Your task to perform on an android device: Search for seafood restaurants on Google Maps Image 0: 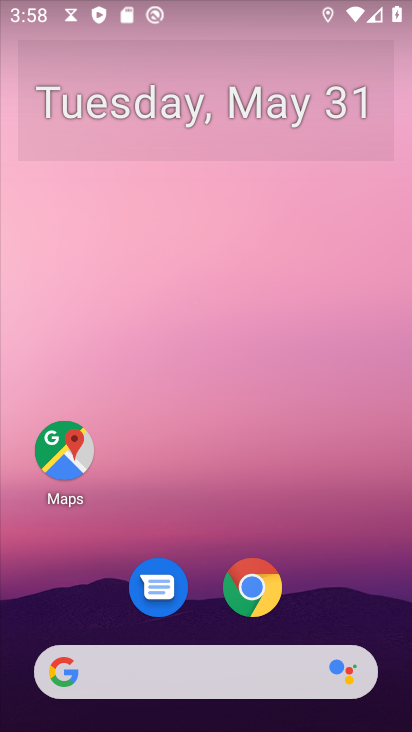
Step 0: click (71, 458)
Your task to perform on an android device: Search for seafood restaurants on Google Maps Image 1: 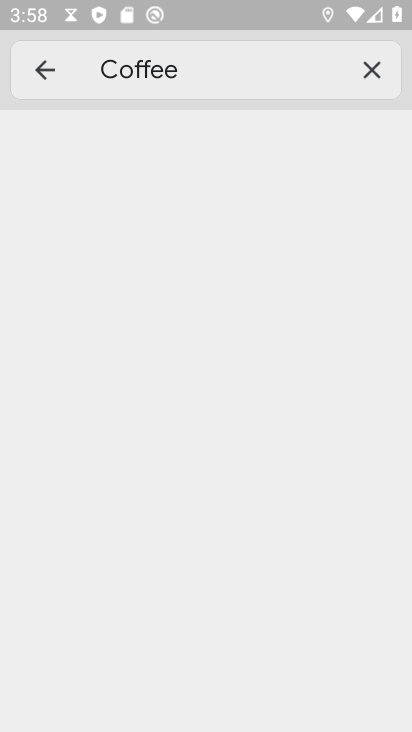
Step 1: click (386, 66)
Your task to perform on an android device: Search for seafood restaurants on Google Maps Image 2: 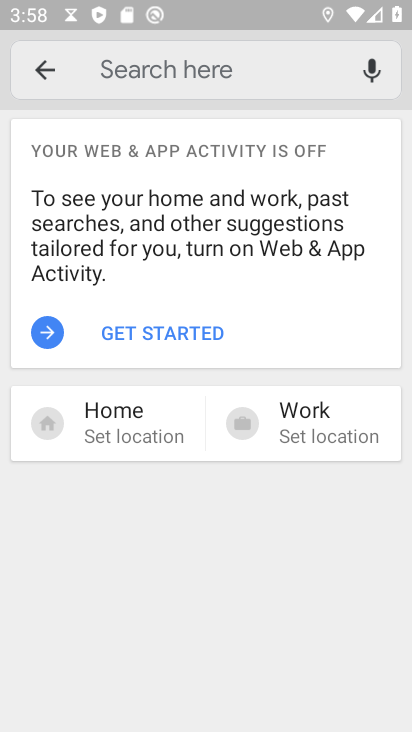
Step 2: click (187, 67)
Your task to perform on an android device: Search for seafood restaurants on Google Maps Image 3: 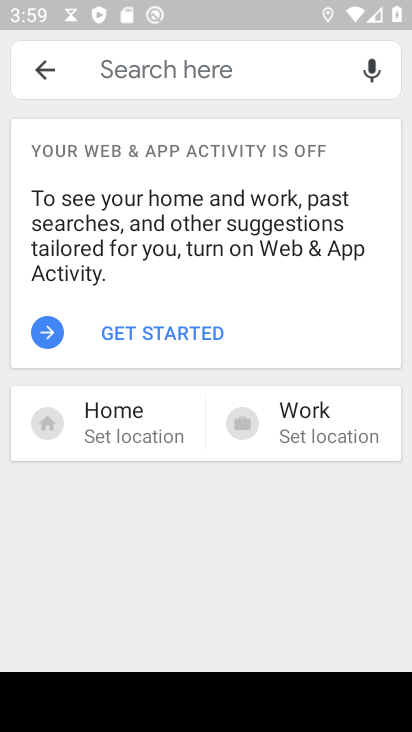
Step 3: type "Seafood restaurants "
Your task to perform on an android device: Search for seafood restaurants on Google Maps Image 4: 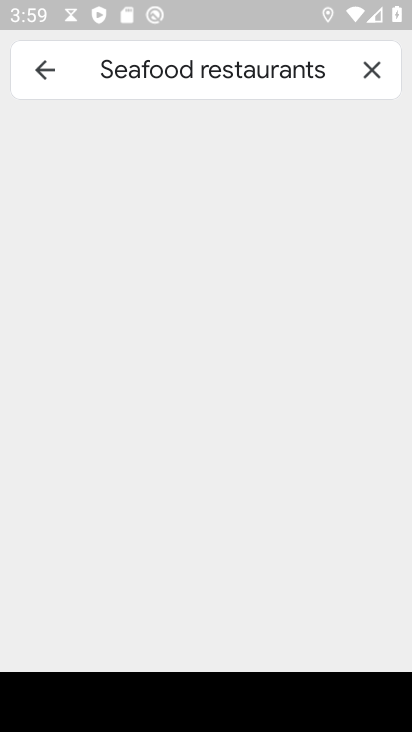
Step 4: task complete